Your task to perform on an android device: Toggle the flashlight Image 0: 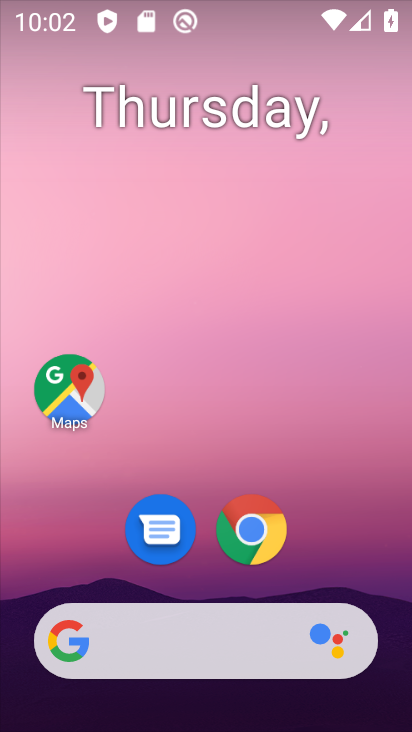
Step 0: drag from (355, 498) to (222, 101)
Your task to perform on an android device: Toggle the flashlight Image 1: 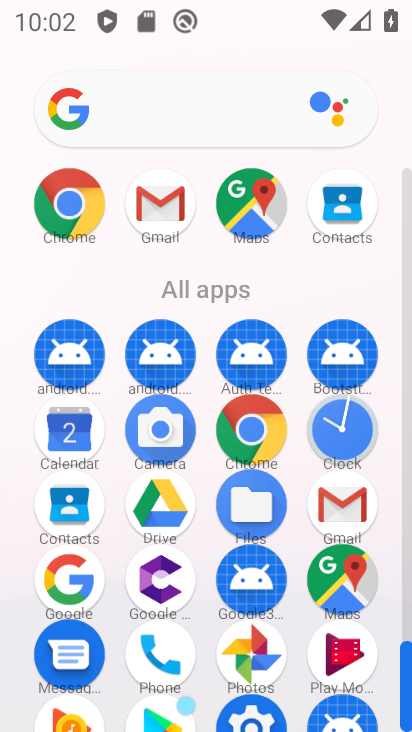
Step 1: click (188, 233)
Your task to perform on an android device: Toggle the flashlight Image 2: 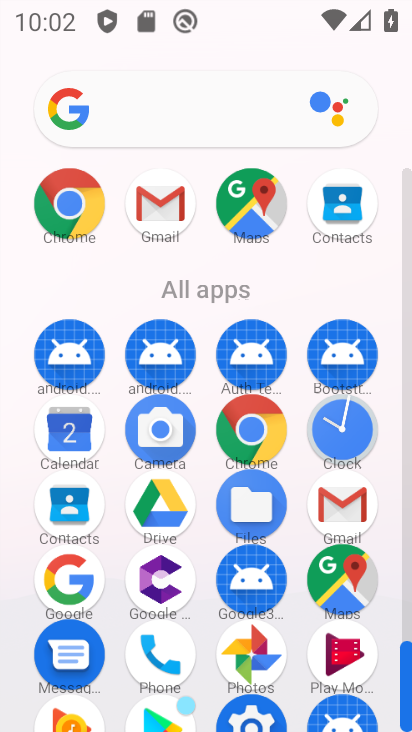
Step 2: drag from (202, 571) to (202, 350)
Your task to perform on an android device: Toggle the flashlight Image 3: 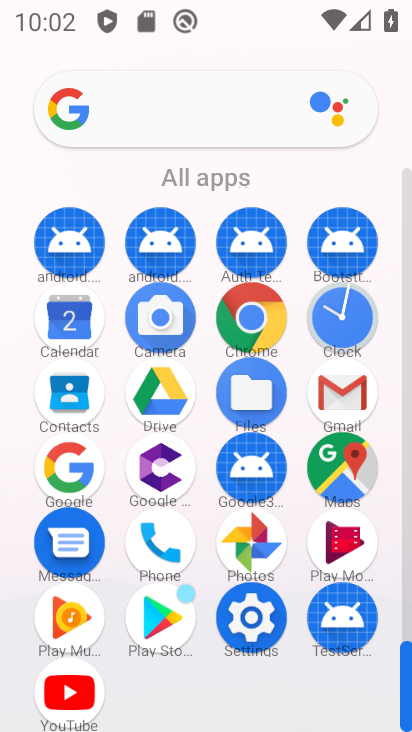
Step 3: click (243, 615)
Your task to perform on an android device: Toggle the flashlight Image 4: 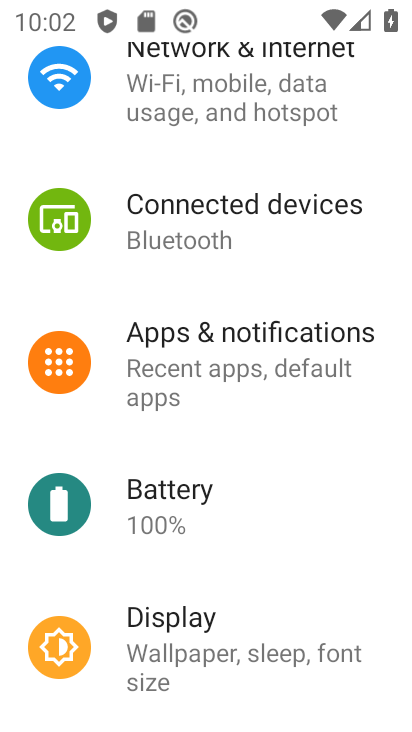
Step 4: click (175, 639)
Your task to perform on an android device: Toggle the flashlight Image 5: 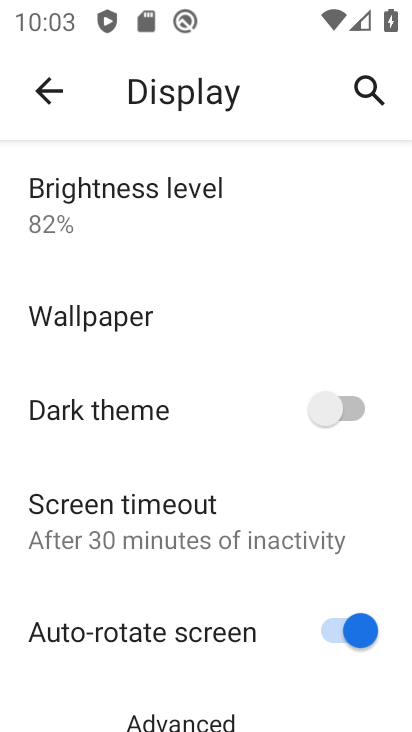
Step 5: task complete